Your task to perform on an android device: visit the assistant section in the google photos Image 0: 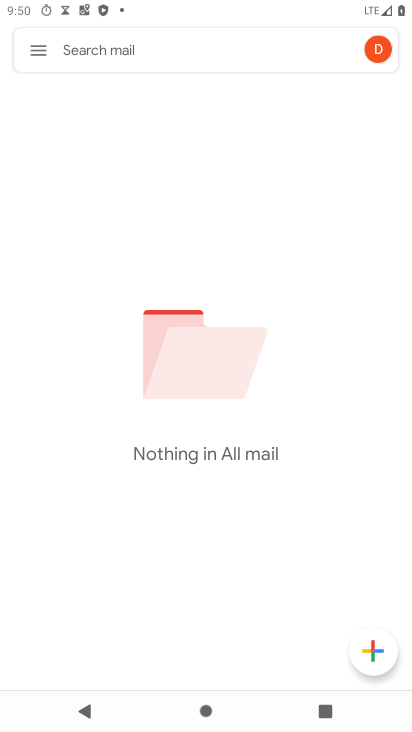
Step 0: press back button
Your task to perform on an android device: visit the assistant section in the google photos Image 1: 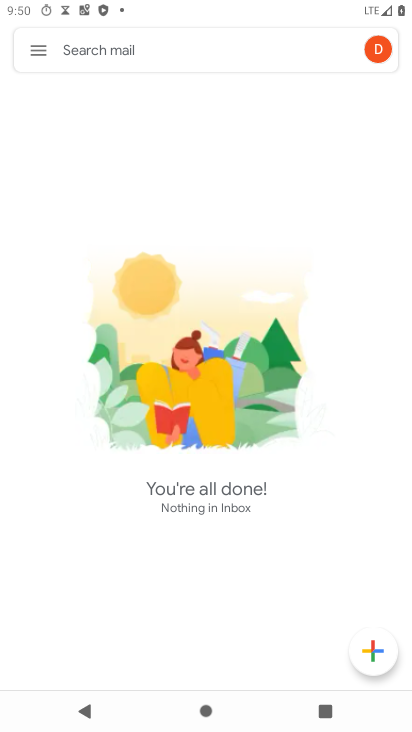
Step 1: press home button
Your task to perform on an android device: visit the assistant section in the google photos Image 2: 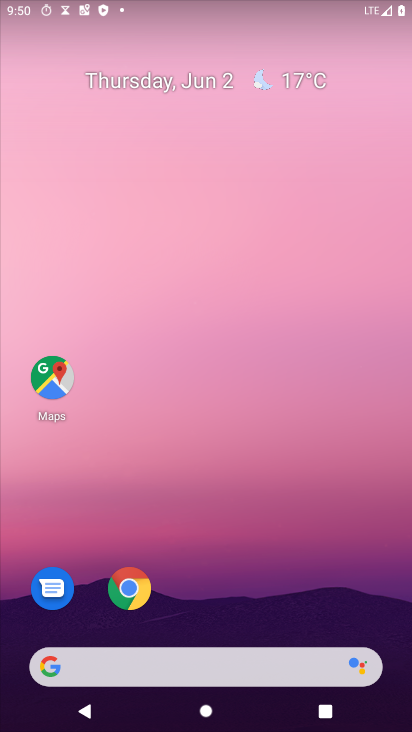
Step 2: drag from (195, 571) to (265, 64)
Your task to perform on an android device: visit the assistant section in the google photos Image 3: 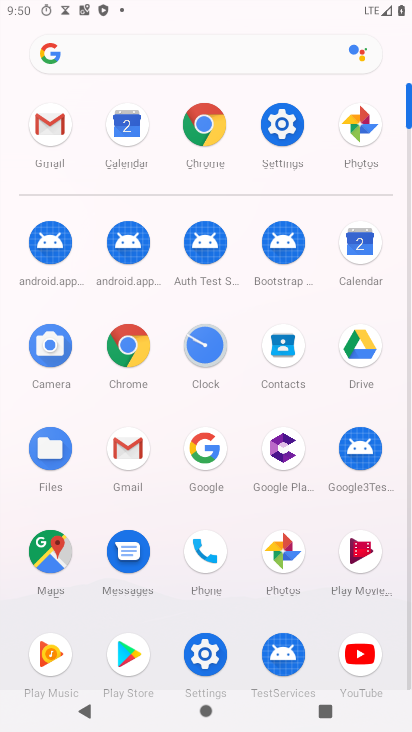
Step 3: click (282, 546)
Your task to perform on an android device: visit the assistant section in the google photos Image 4: 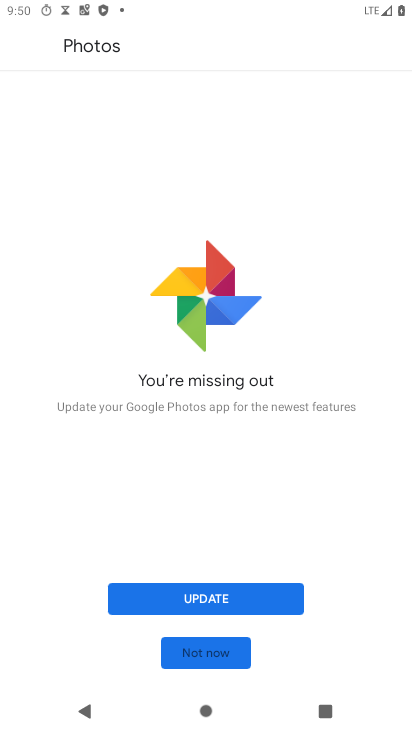
Step 4: click (195, 643)
Your task to perform on an android device: visit the assistant section in the google photos Image 5: 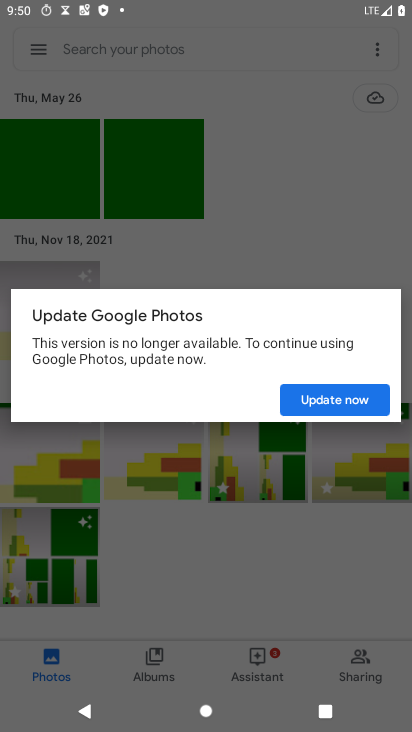
Step 5: click (320, 394)
Your task to perform on an android device: visit the assistant section in the google photos Image 6: 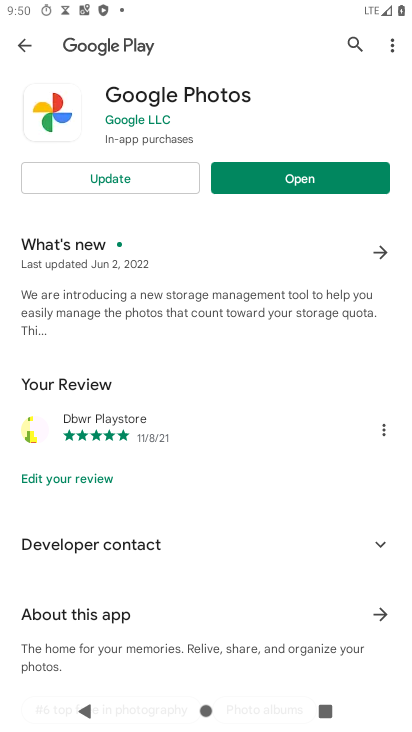
Step 6: click (297, 178)
Your task to perform on an android device: visit the assistant section in the google photos Image 7: 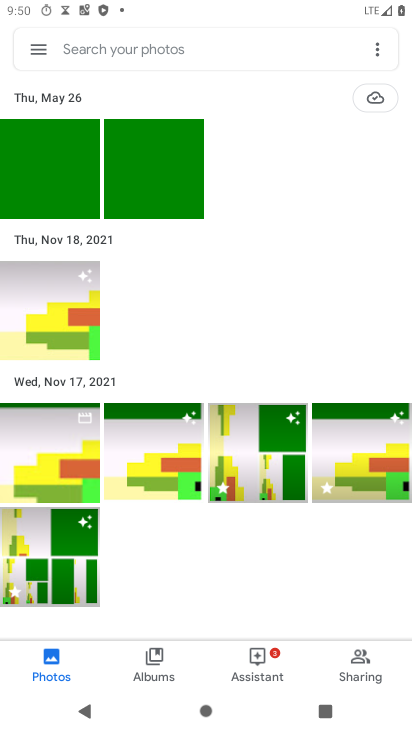
Step 7: click (259, 669)
Your task to perform on an android device: visit the assistant section in the google photos Image 8: 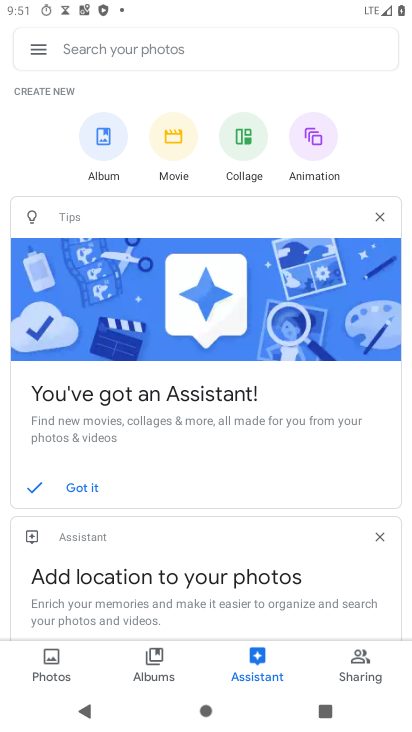
Step 8: task complete